Your task to perform on an android device: Go to CNN.com Image 0: 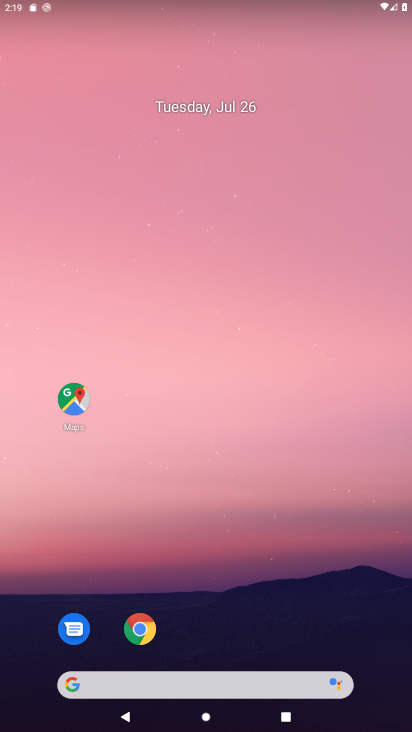
Step 0: drag from (185, 655) to (195, 1)
Your task to perform on an android device: Go to CNN.com Image 1: 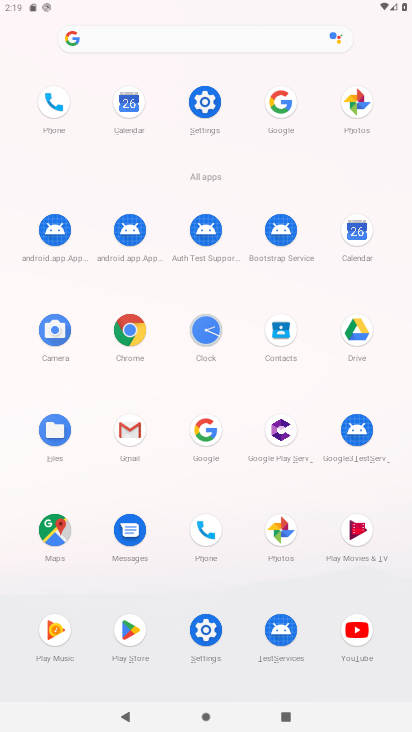
Step 1: click (130, 323)
Your task to perform on an android device: Go to CNN.com Image 2: 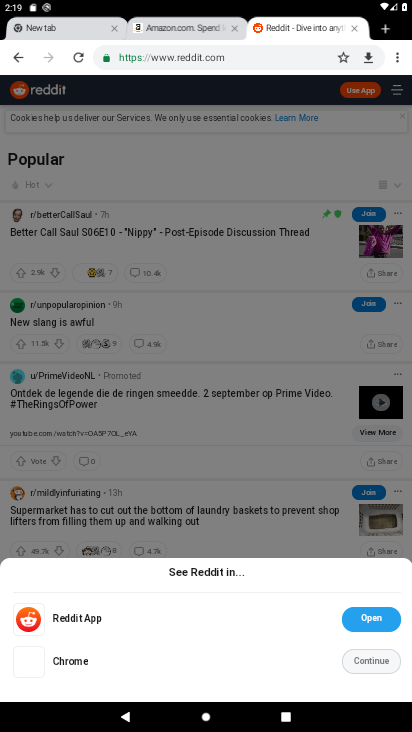
Step 2: click (386, 34)
Your task to perform on an android device: Go to CNN.com Image 3: 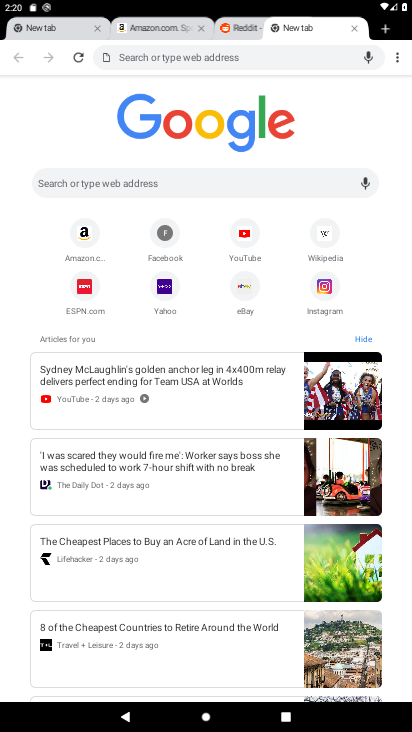
Step 3: click (130, 192)
Your task to perform on an android device: Go to CNN.com Image 4: 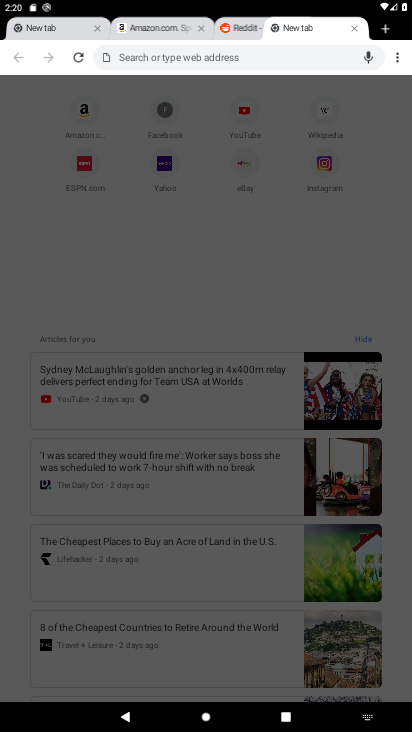
Step 4: type "CNN.com"
Your task to perform on an android device: Go to CNN.com Image 5: 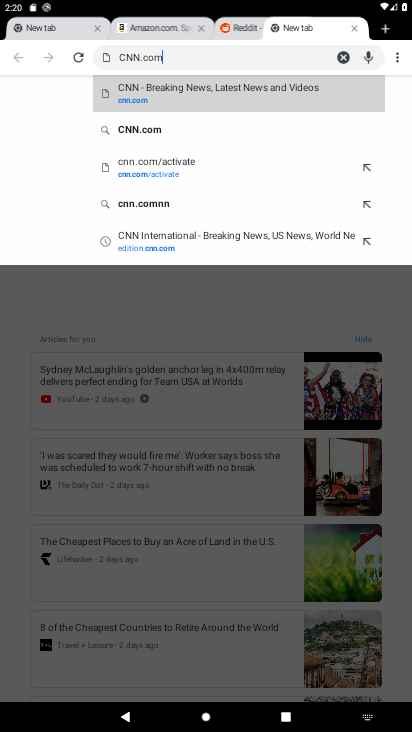
Step 5: type ""
Your task to perform on an android device: Go to CNN.com Image 6: 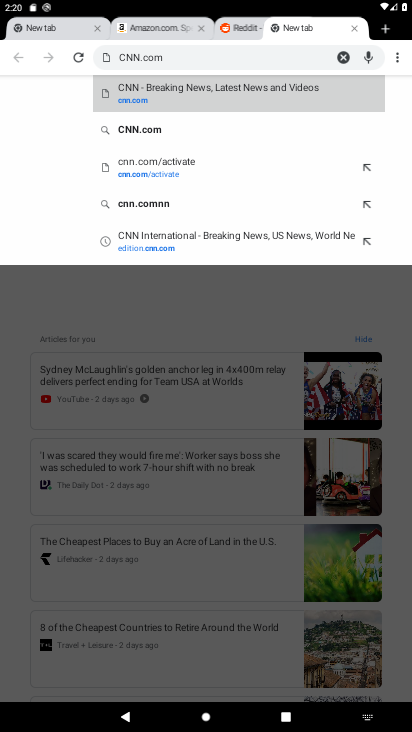
Step 6: click (211, 101)
Your task to perform on an android device: Go to CNN.com Image 7: 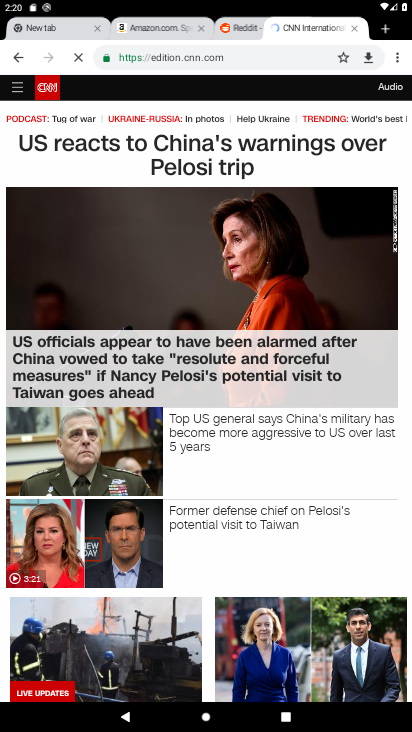
Step 7: task complete